Your task to perform on an android device: open wifi settings Image 0: 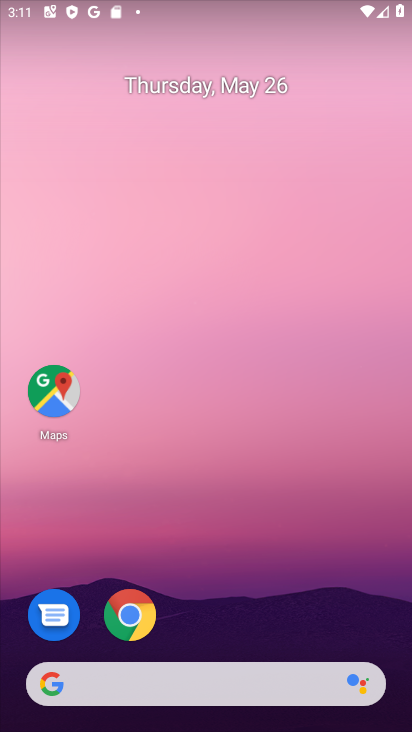
Step 0: drag from (238, 628) to (241, 203)
Your task to perform on an android device: open wifi settings Image 1: 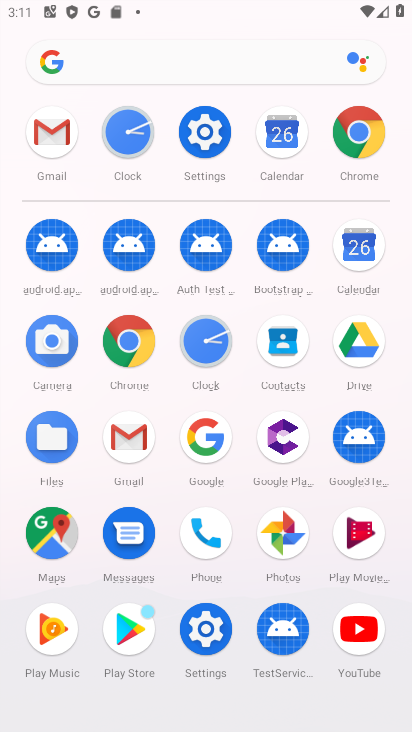
Step 1: click (216, 124)
Your task to perform on an android device: open wifi settings Image 2: 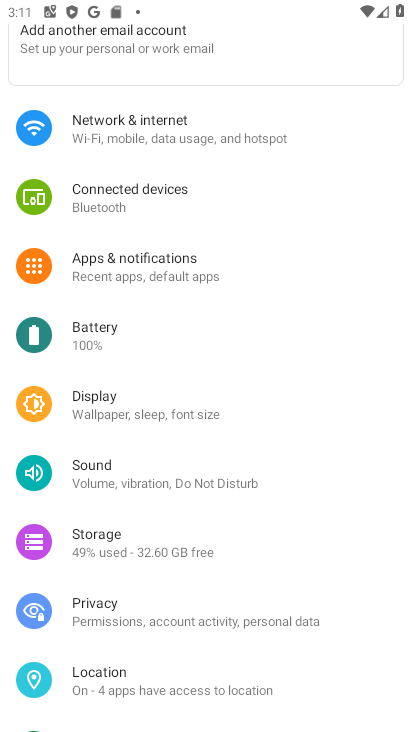
Step 2: drag from (196, 116) to (138, 460)
Your task to perform on an android device: open wifi settings Image 3: 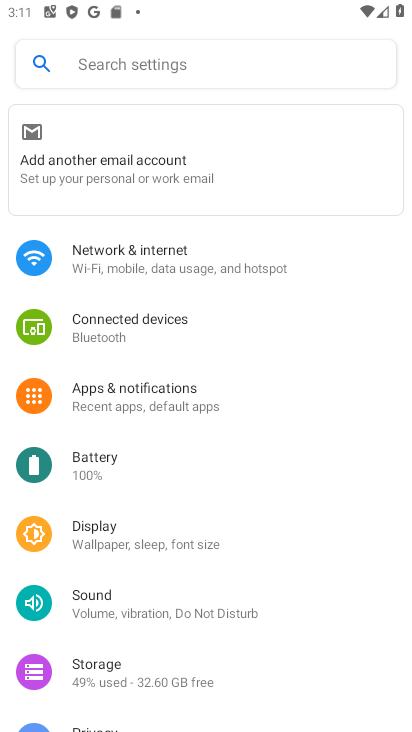
Step 3: click (160, 255)
Your task to perform on an android device: open wifi settings Image 4: 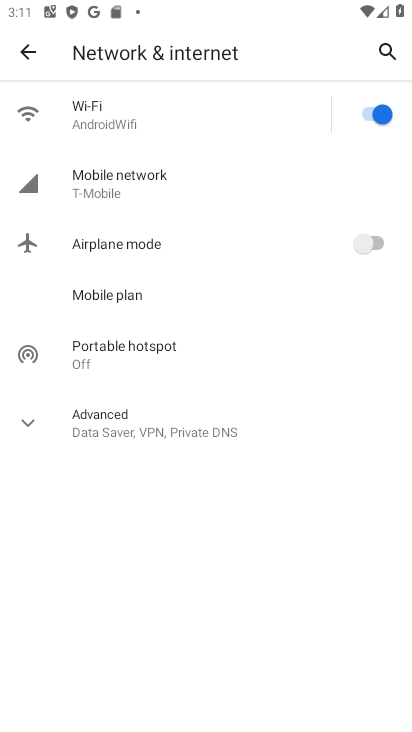
Step 4: click (156, 134)
Your task to perform on an android device: open wifi settings Image 5: 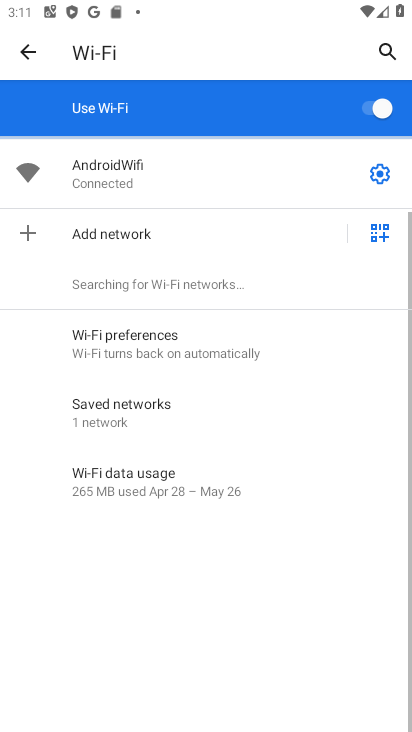
Step 5: task complete